Your task to perform on an android device: Open battery settings Image 0: 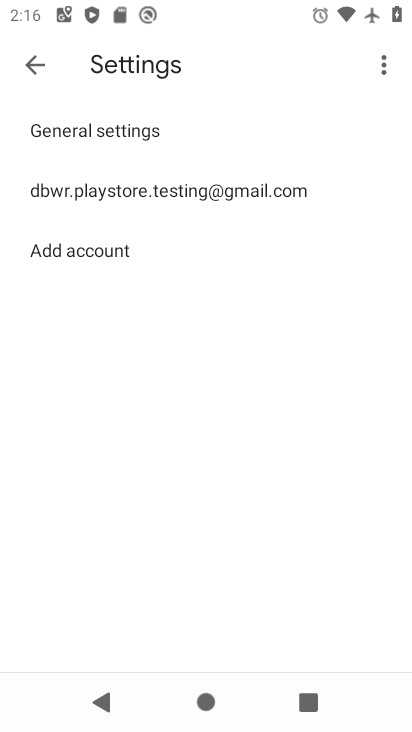
Step 0: press home button
Your task to perform on an android device: Open battery settings Image 1: 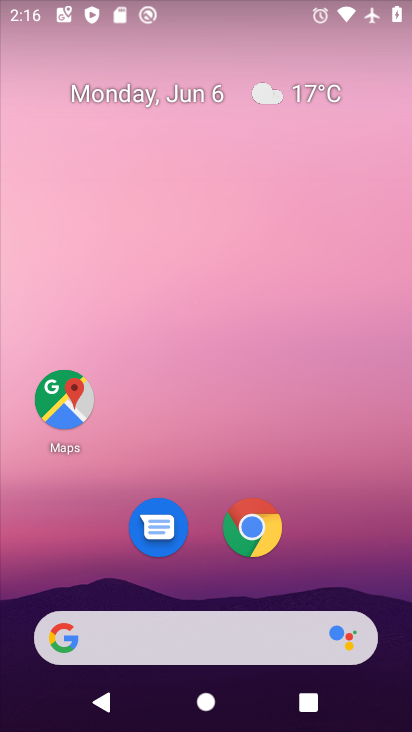
Step 1: drag from (363, 499) to (277, 7)
Your task to perform on an android device: Open battery settings Image 2: 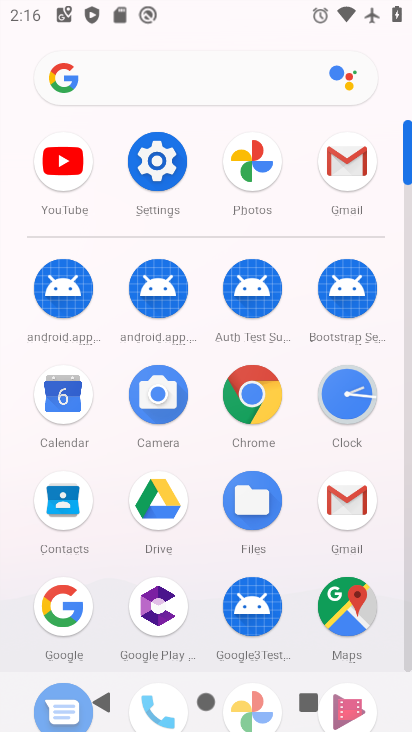
Step 2: click (123, 164)
Your task to perform on an android device: Open battery settings Image 3: 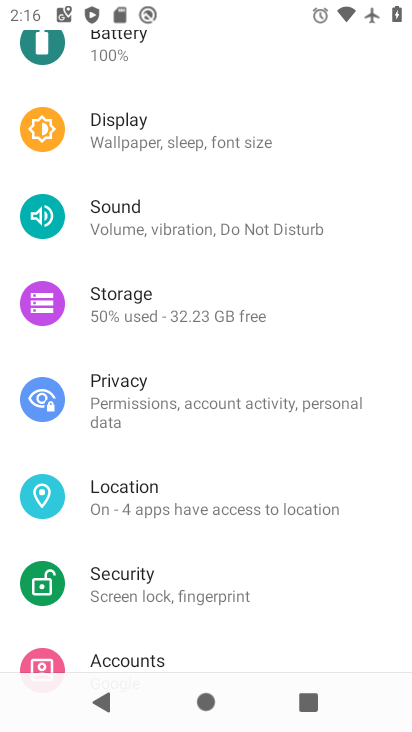
Step 3: click (133, 64)
Your task to perform on an android device: Open battery settings Image 4: 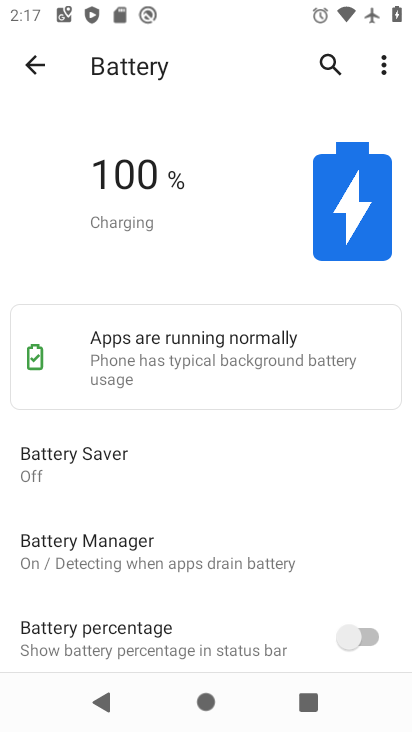
Step 4: task complete